Your task to perform on an android device: What is the recent news? Image 0: 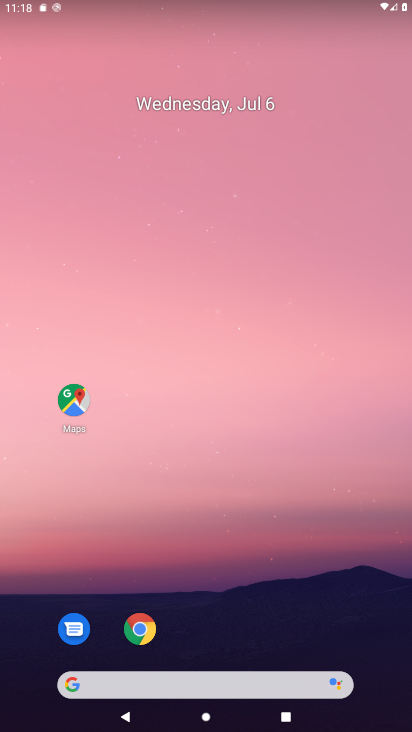
Step 0: drag from (2, 233) to (369, 438)
Your task to perform on an android device: What is the recent news? Image 1: 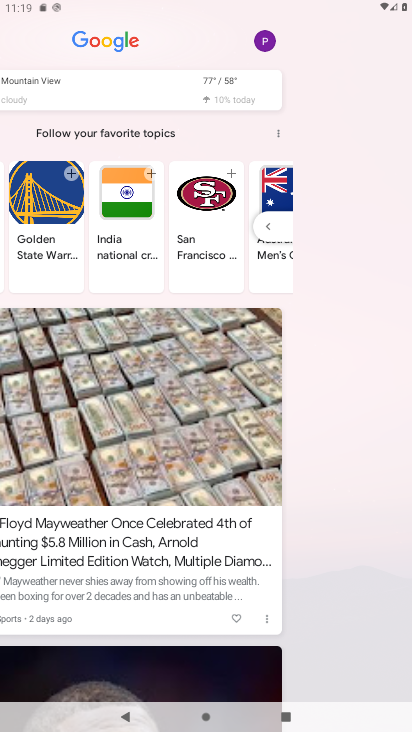
Step 1: task complete